Your task to perform on an android device: Go to Yahoo.com Image 0: 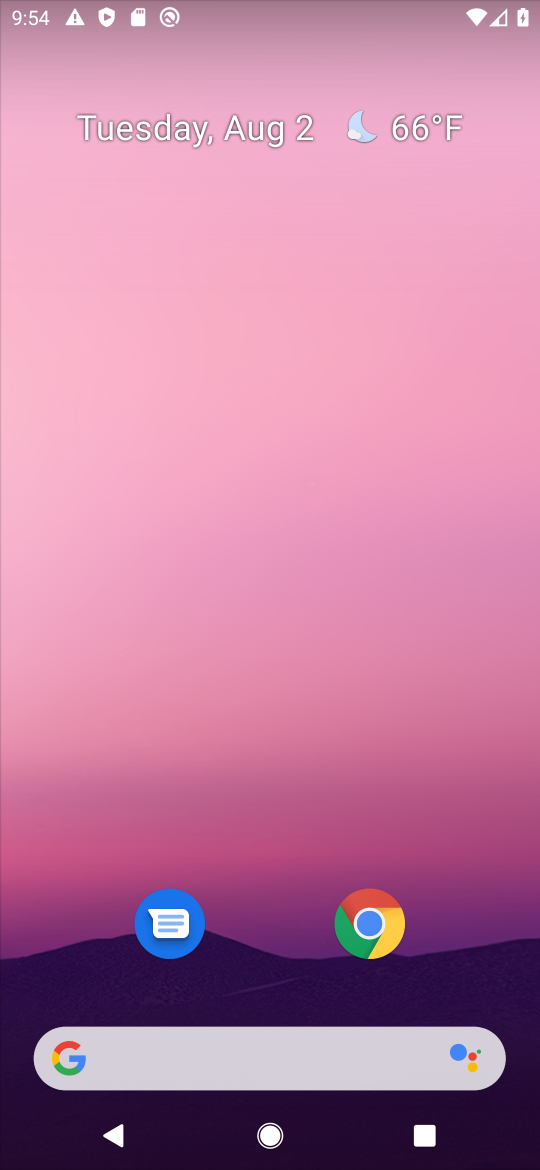
Step 0: press home button
Your task to perform on an android device: Go to Yahoo.com Image 1: 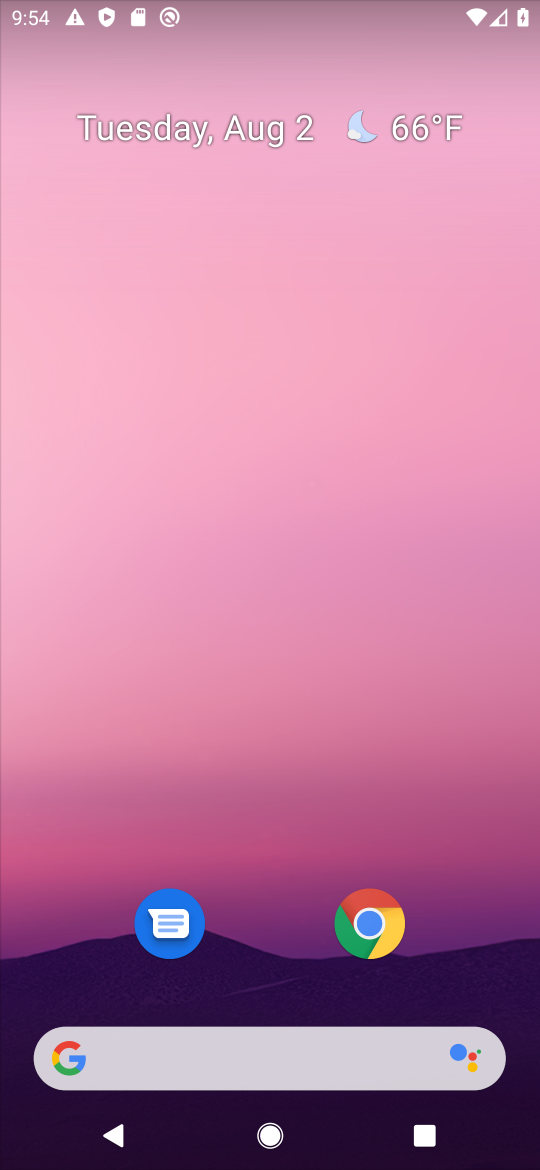
Step 1: click (63, 1059)
Your task to perform on an android device: Go to Yahoo.com Image 2: 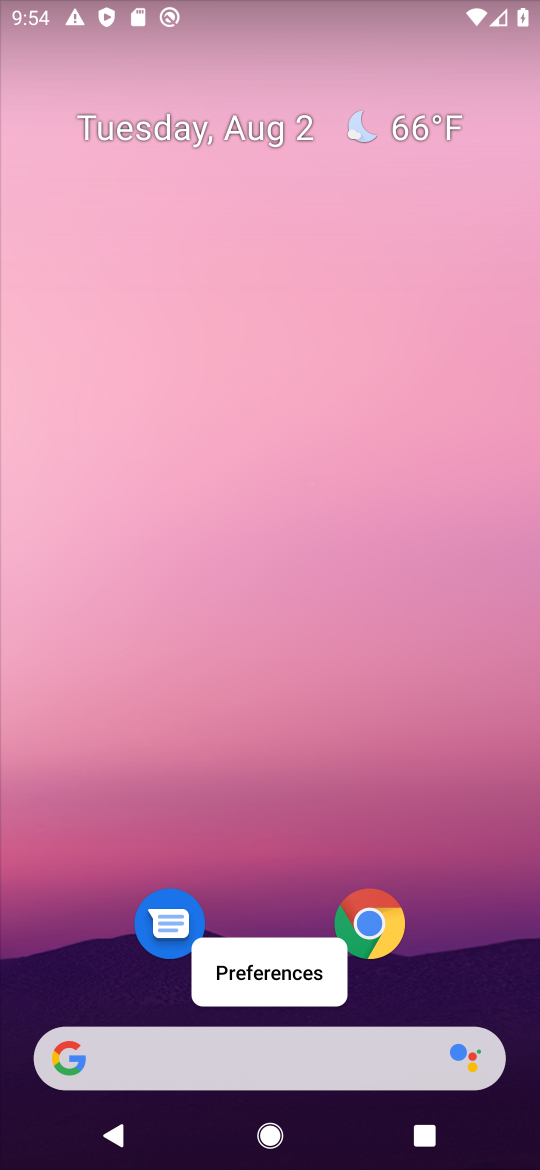
Step 2: click (62, 1058)
Your task to perform on an android device: Go to Yahoo.com Image 3: 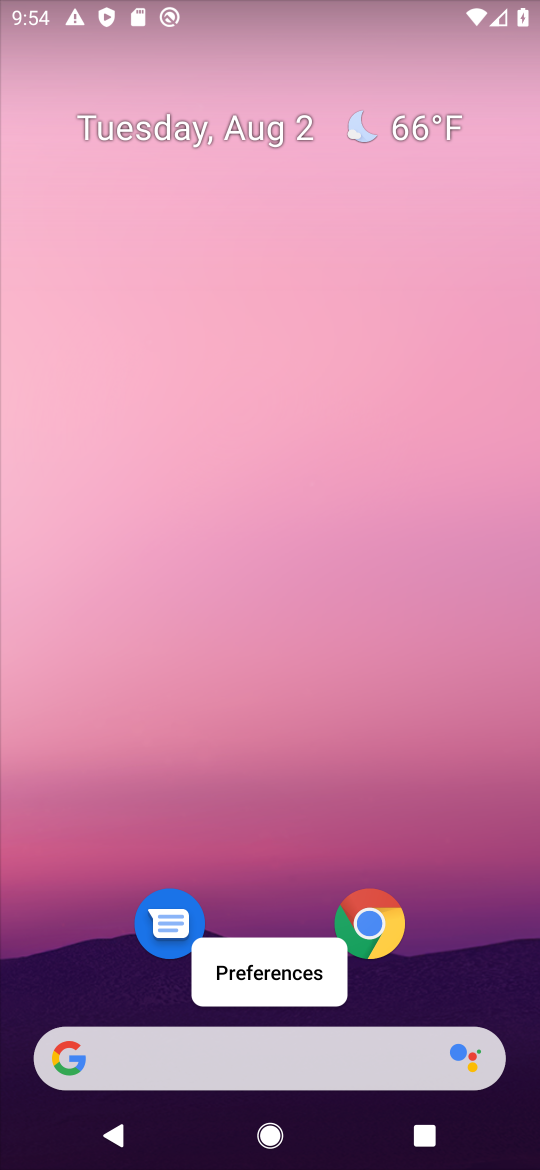
Step 3: click (62, 1058)
Your task to perform on an android device: Go to Yahoo.com Image 4: 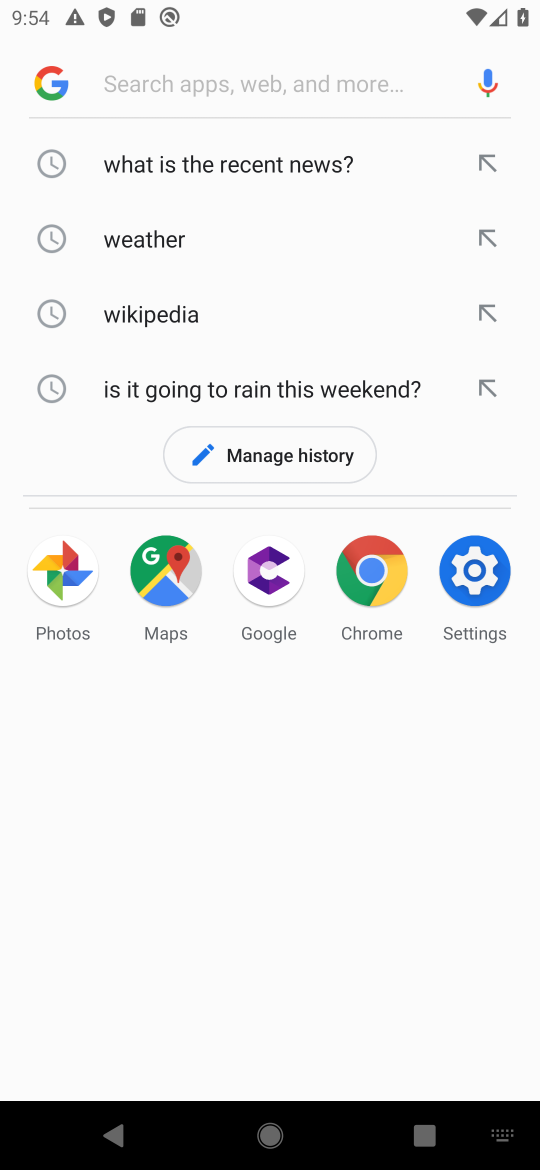
Step 4: type "Yahoo.com"
Your task to perform on an android device: Go to Yahoo.com Image 5: 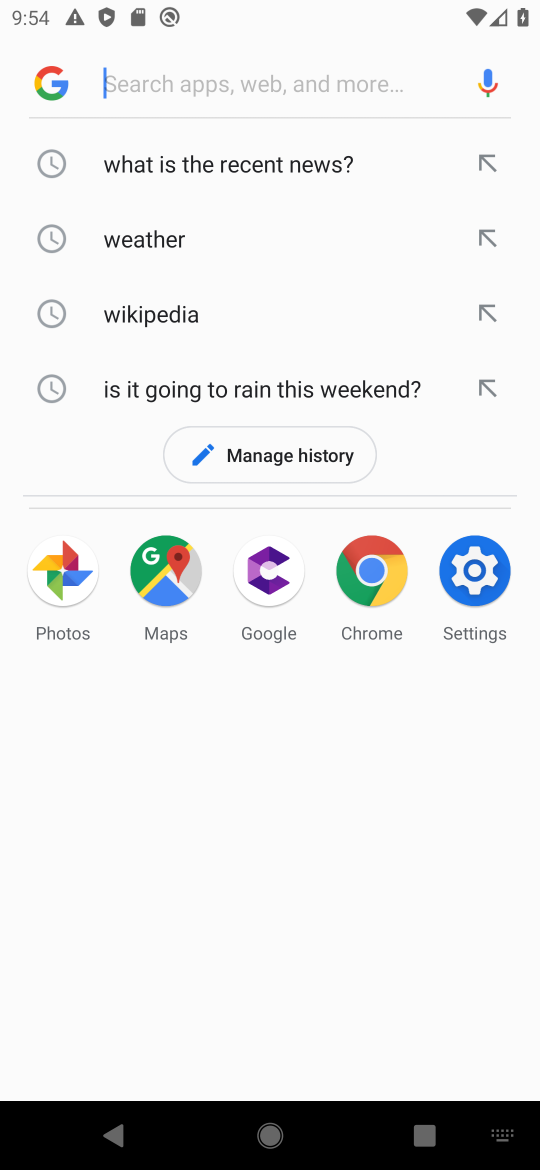
Step 5: click (167, 84)
Your task to perform on an android device: Go to Yahoo.com Image 6: 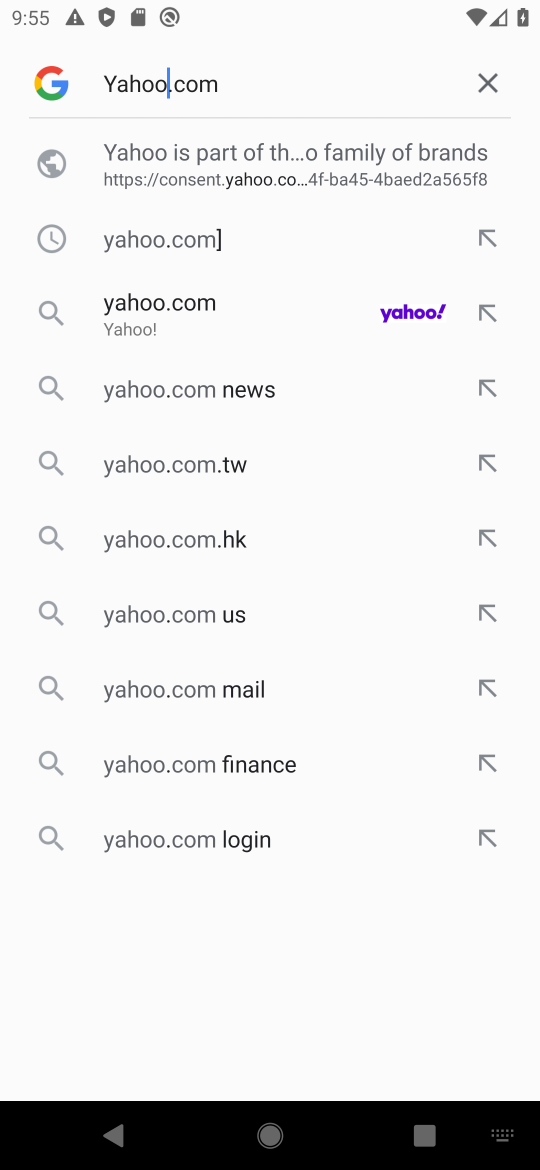
Step 6: click (100, 312)
Your task to perform on an android device: Go to Yahoo.com Image 7: 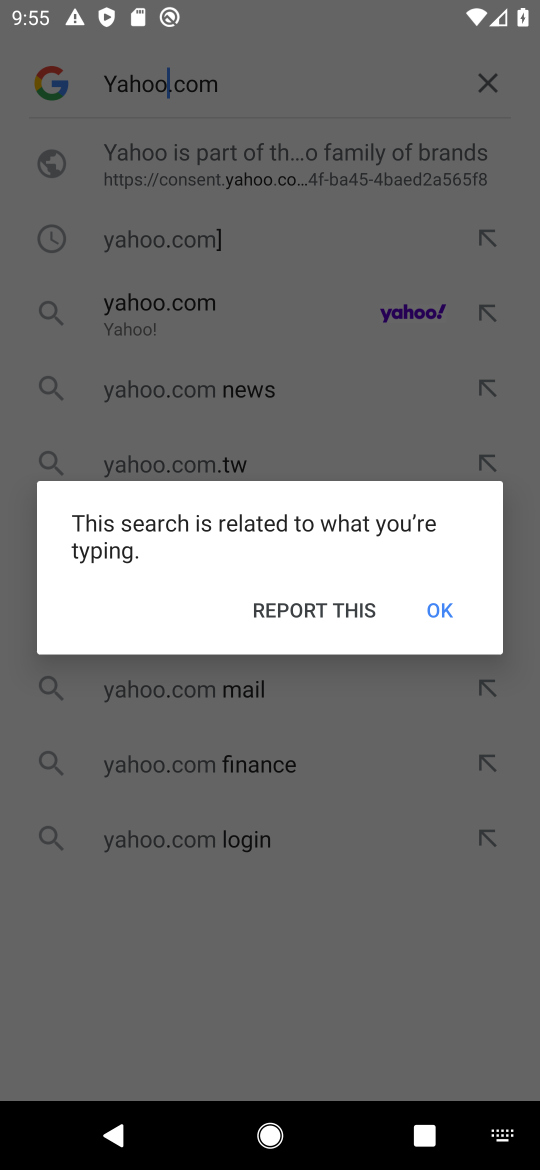
Step 7: click (443, 605)
Your task to perform on an android device: Go to Yahoo.com Image 8: 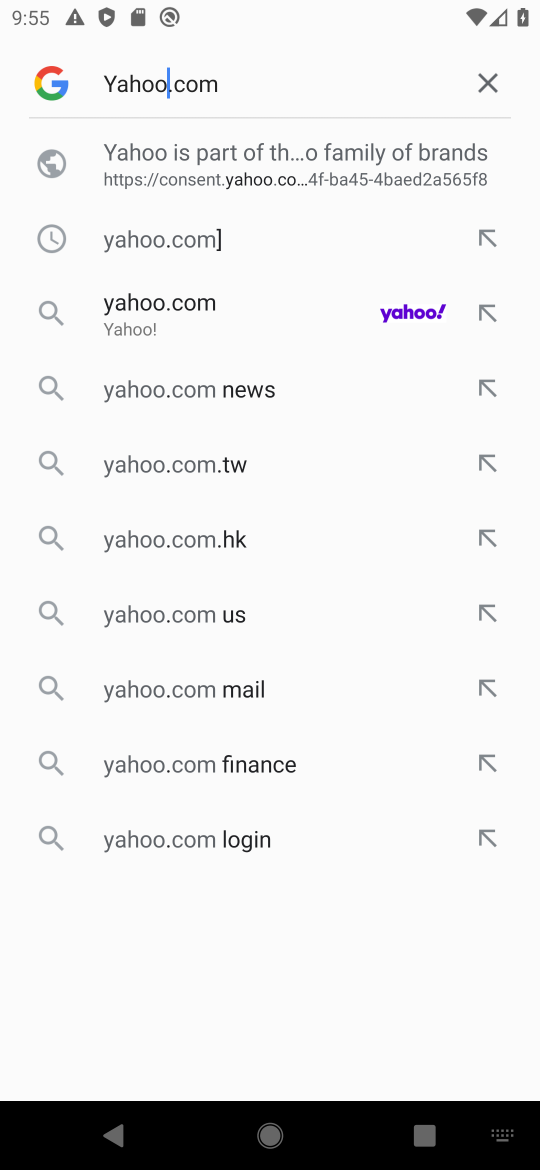
Step 8: press enter
Your task to perform on an android device: Go to Yahoo.com Image 9: 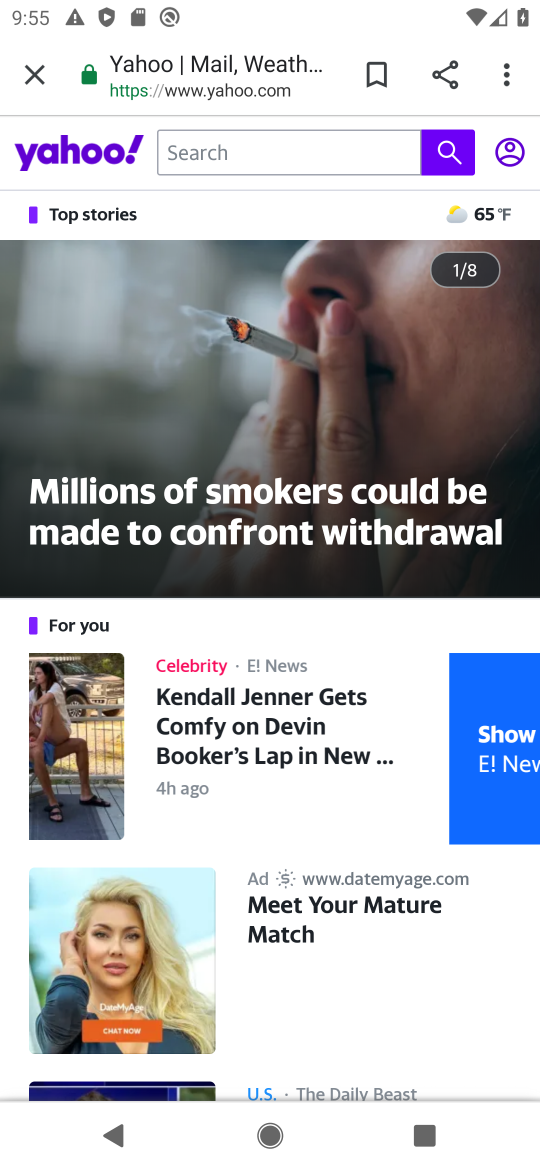
Step 9: task complete